Your task to perform on an android device: Open Youtube and go to the subscriptions tab Image 0: 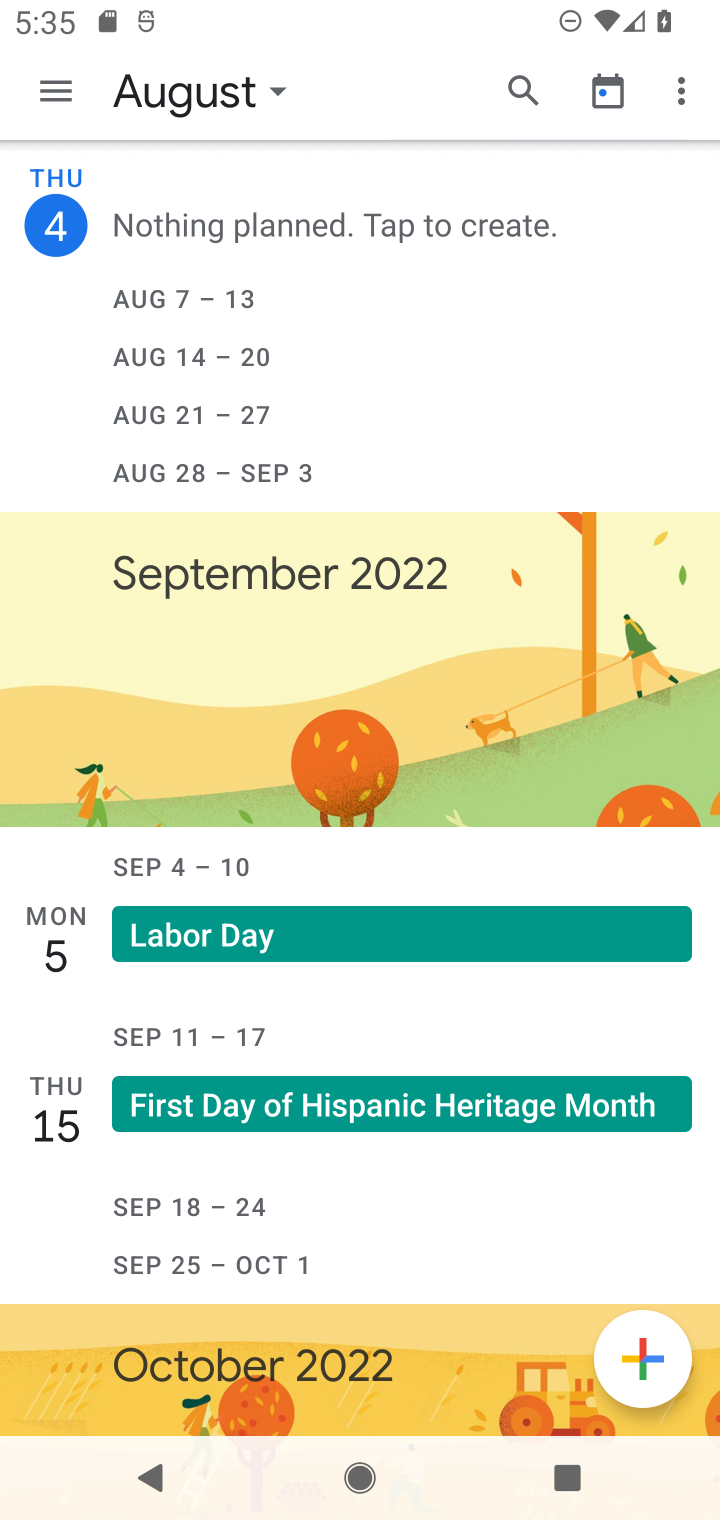
Step 0: press home button
Your task to perform on an android device: Open Youtube and go to the subscriptions tab Image 1: 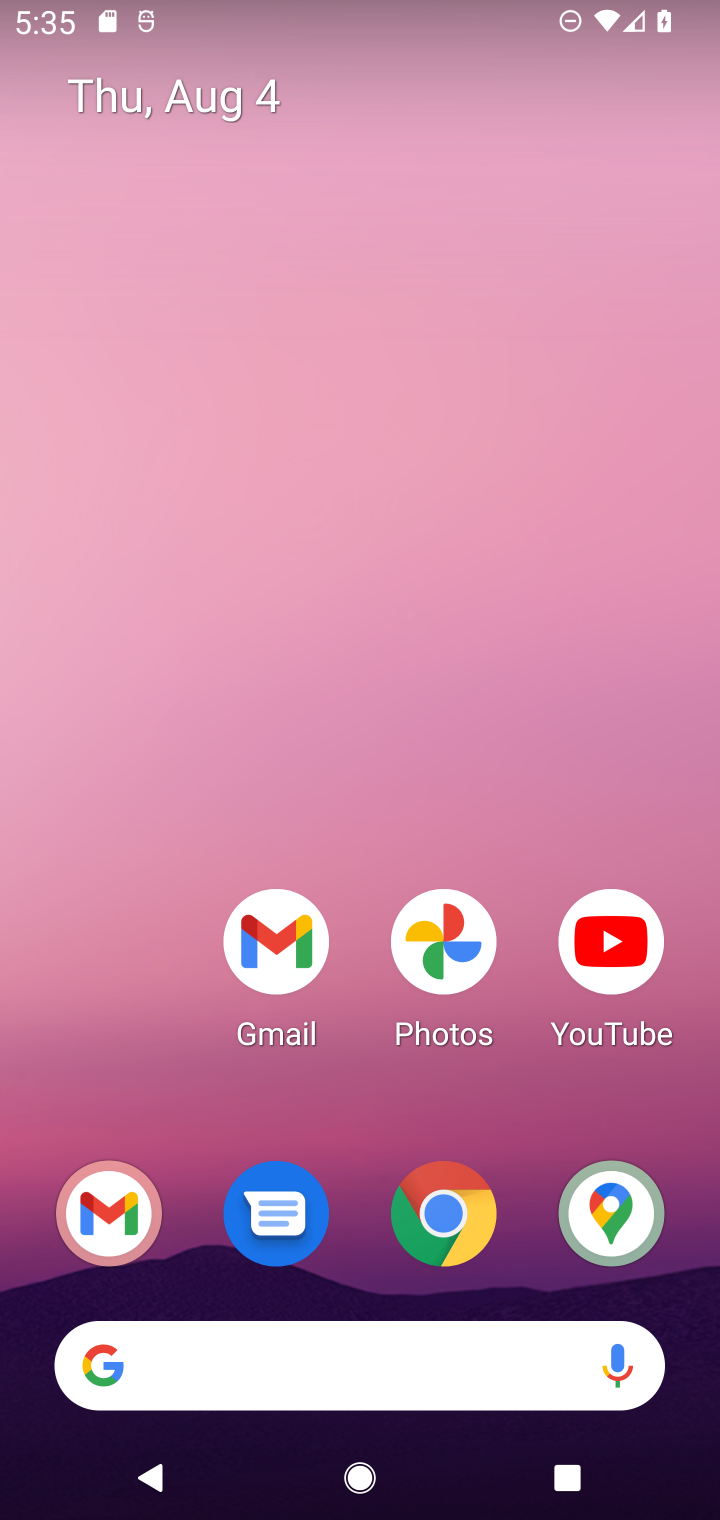
Step 1: drag from (168, 894) to (202, 341)
Your task to perform on an android device: Open Youtube and go to the subscriptions tab Image 2: 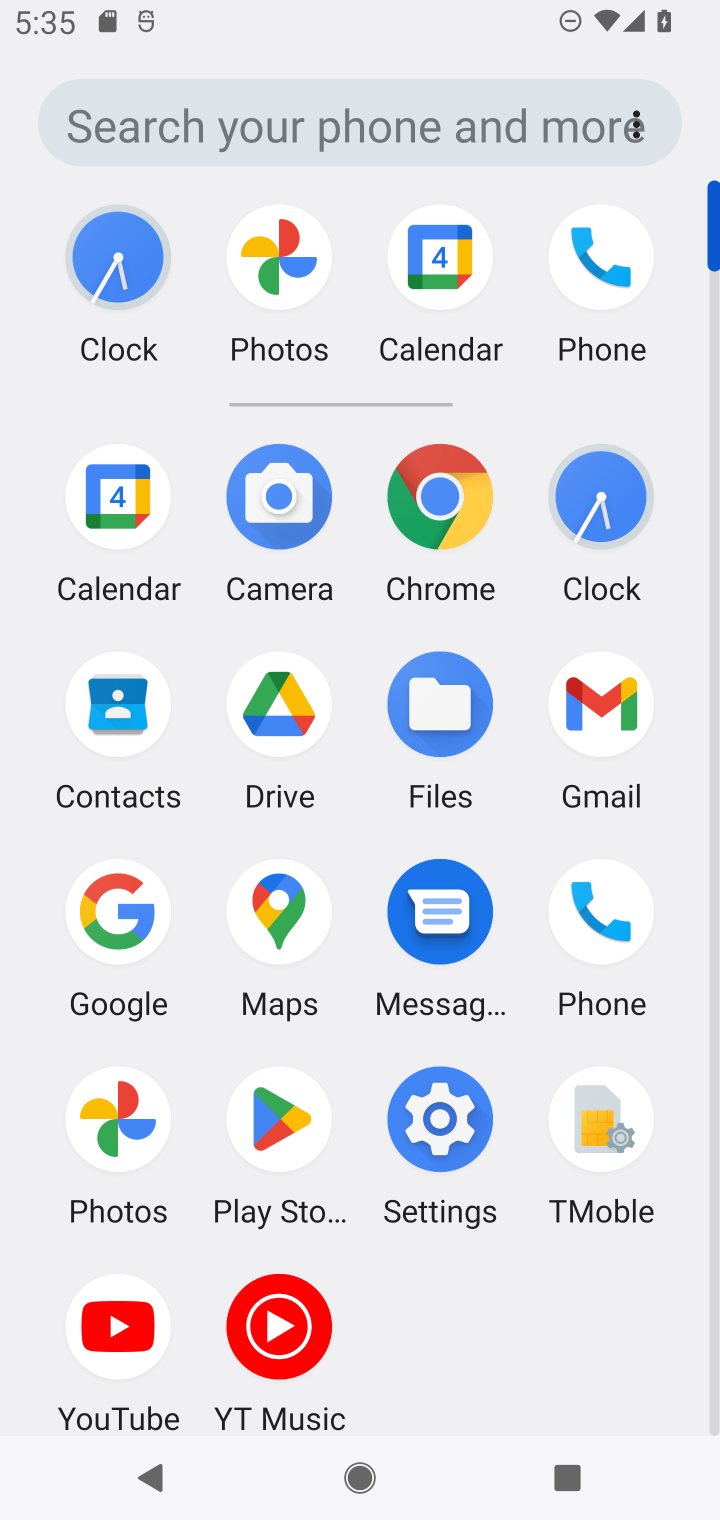
Step 2: click (121, 1335)
Your task to perform on an android device: Open Youtube and go to the subscriptions tab Image 3: 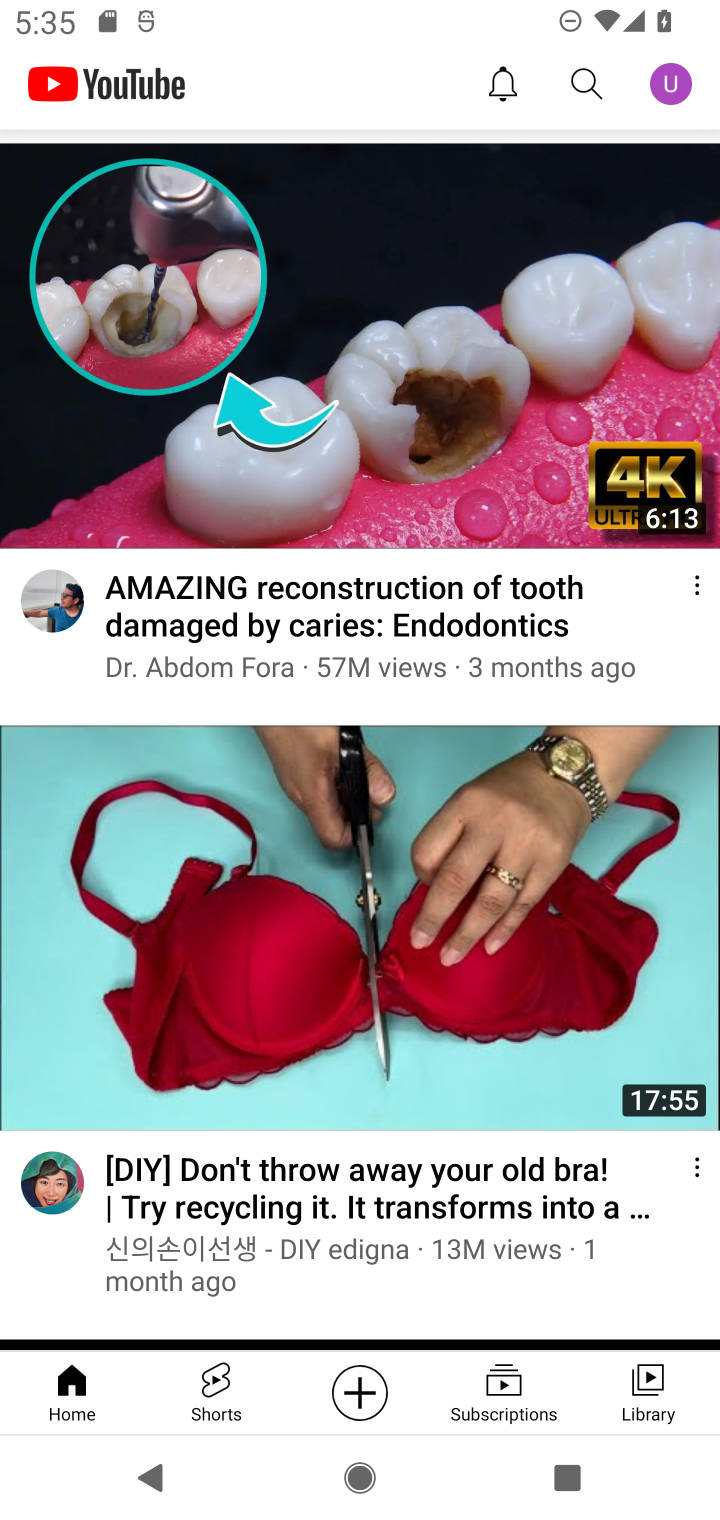
Step 3: click (488, 1374)
Your task to perform on an android device: Open Youtube and go to the subscriptions tab Image 4: 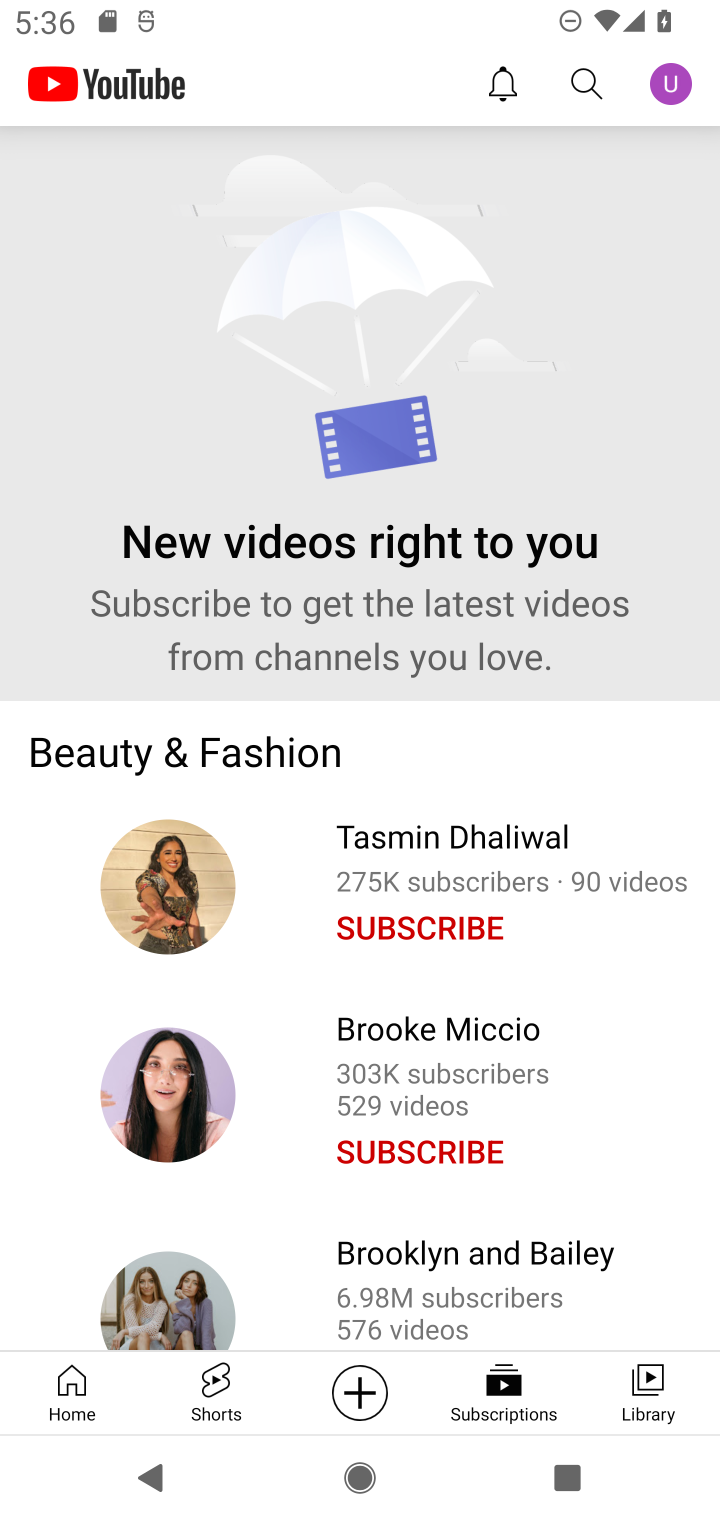
Step 4: task complete